Your task to perform on an android device: What's on my calendar for the rest of the month? Image 0: 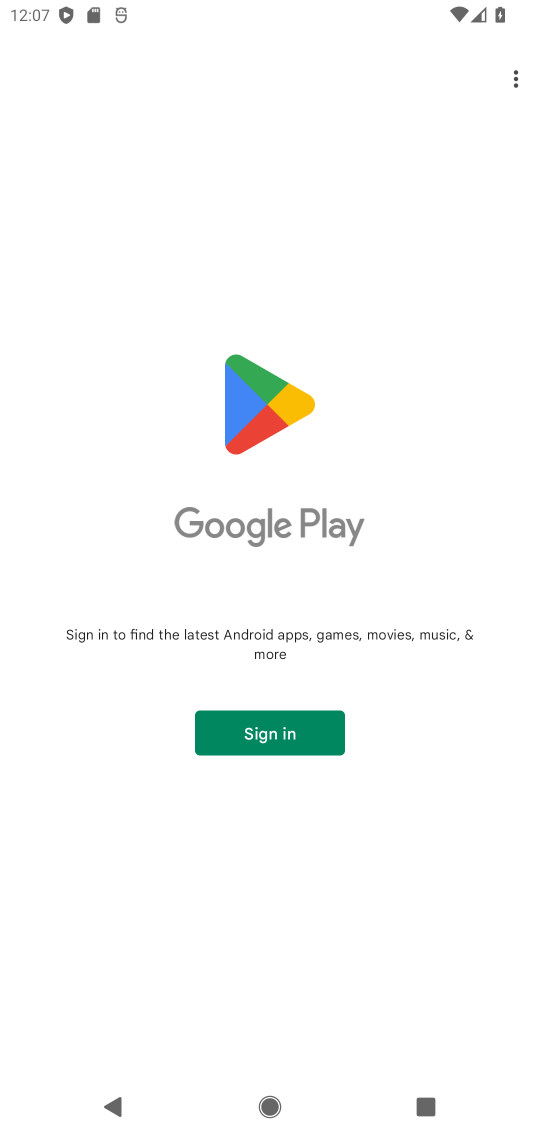
Step 0: press home button
Your task to perform on an android device: What's on my calendar for the rest of the month? Image 1: 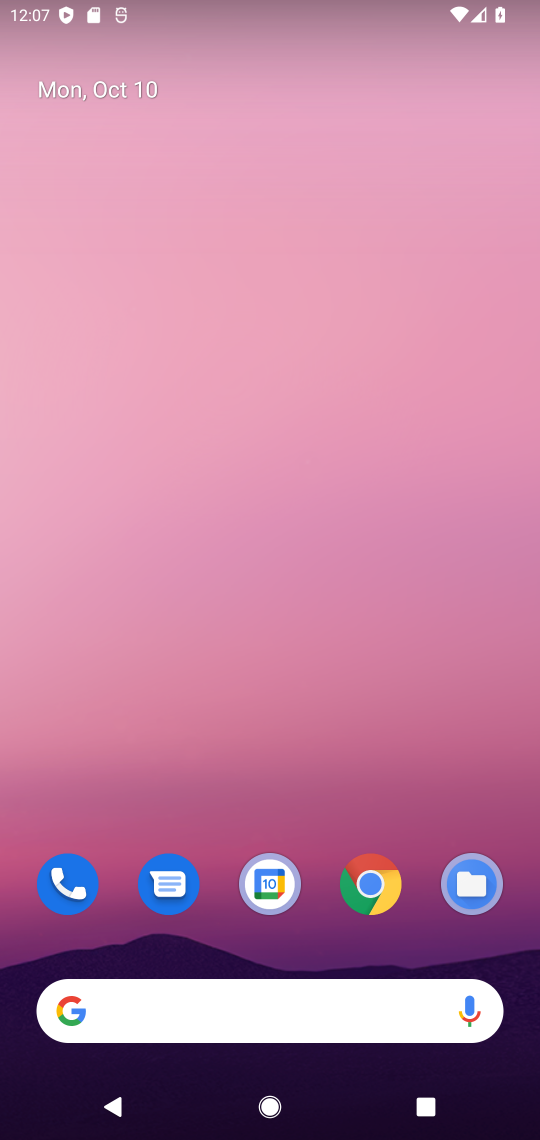
Step 1: drag from (280, 1057) to (275, 361)
Your task to perform on an android device: What's on my calendar for the rest of the month? Image 2: 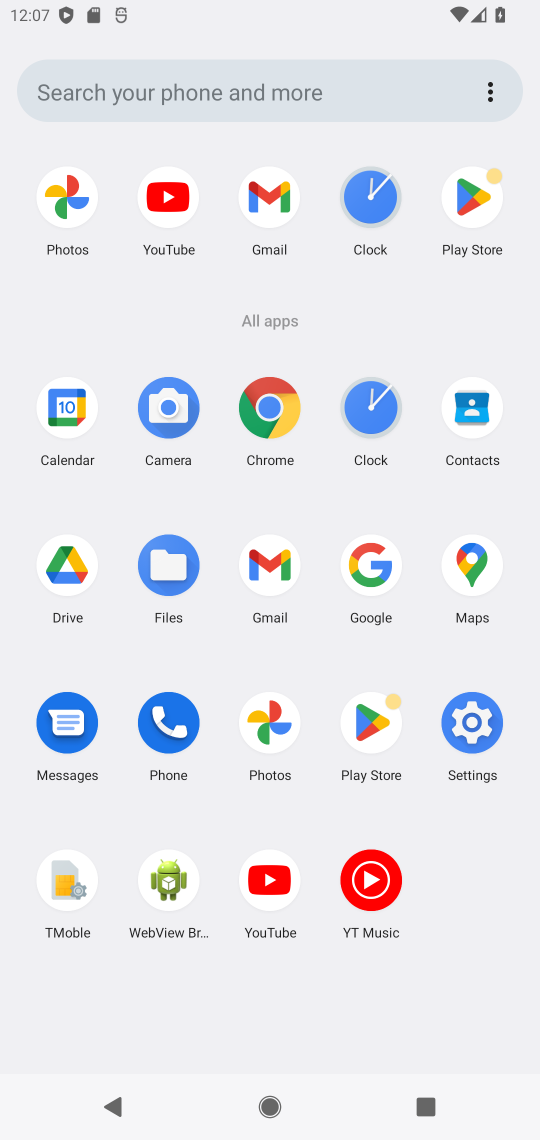
Step 2: click (65, 417)
Your task to perform on an android device: What's on my calendar for the rest of the month? Image 3: 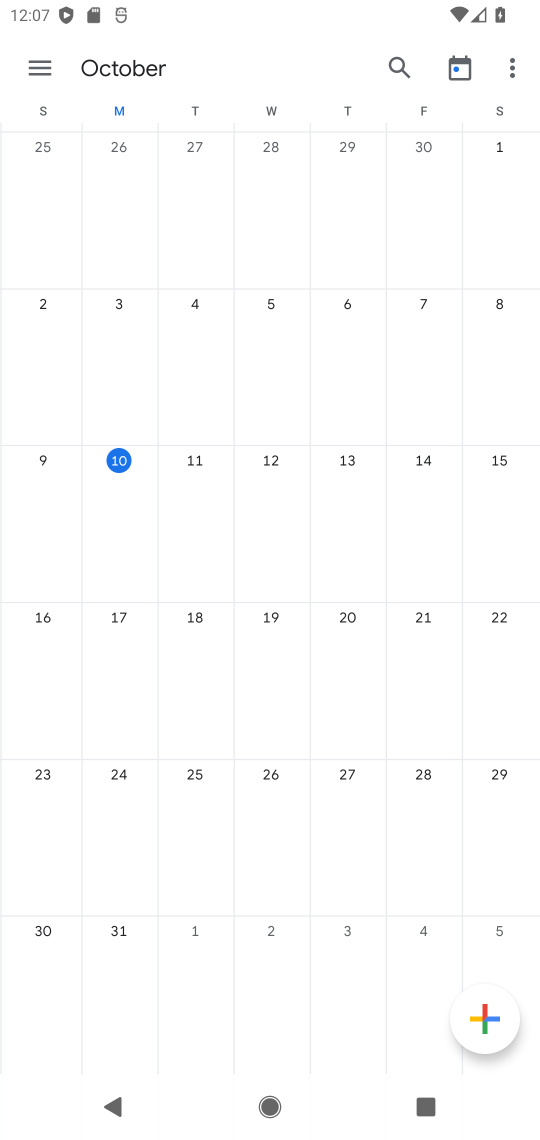
Step 3: task complete